Your task to perform on an android device: When is my next appointment? Image 0: 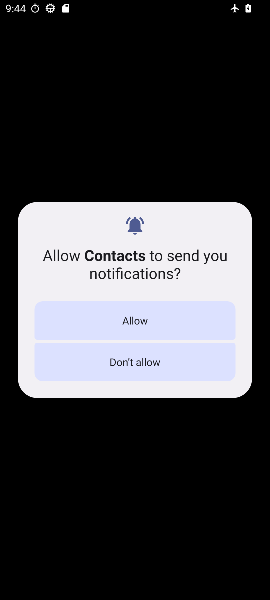
Step 0: press home button
Your task to perform on an android device: When is my next appointment? Image 1: 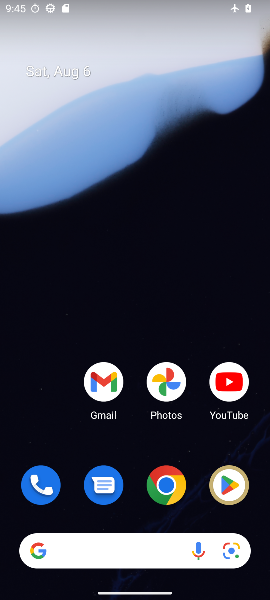
Step 1: drag from (130, 448) to (158, 37)
Your task to perform on an android device: When is my next appointment? Image 2: 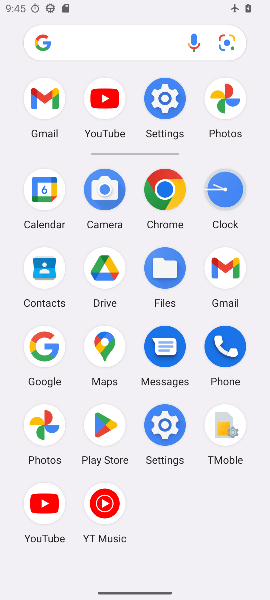
Step 2: click (35, 187)
Your task to perform on an android device: When is my next appointment? Image 3: 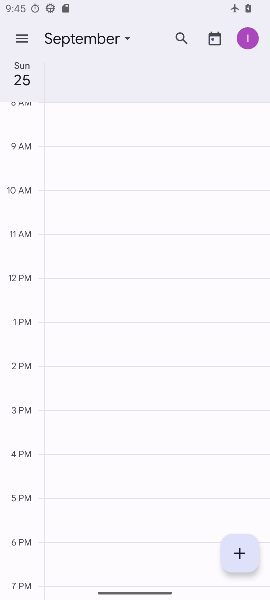
Step 3: click (75, 30)
Your task to perform on an android device: When is my next appointment? Image 4: 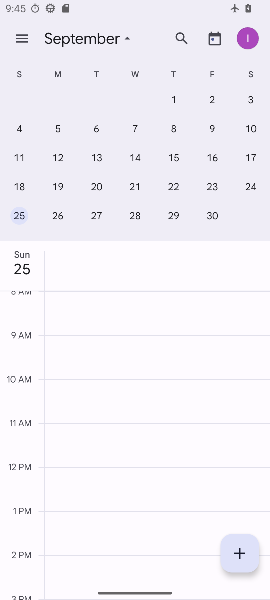
Step 4: drag from (60, 167) to (269, 127)
Your task to perform on an android device: When is my next appointment? Image 5: 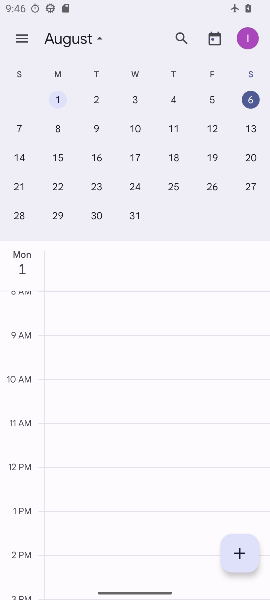
Step 5: click (248, 93)
Your task to perform on an android device: When is my next appointment? Image 6: 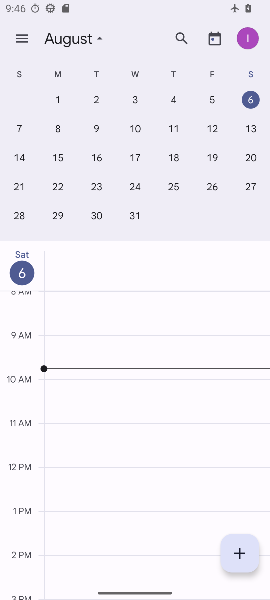
Step 6: task complete